Your task to perform on an android device: turn on the 12-hour format for clock Image 0: 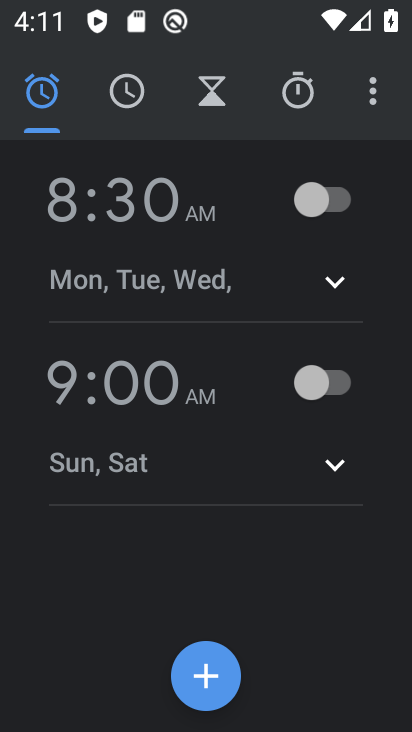
Step 0: press home button
Your task to perform on an android device: turn on the 12-hour format for clock Image 1: 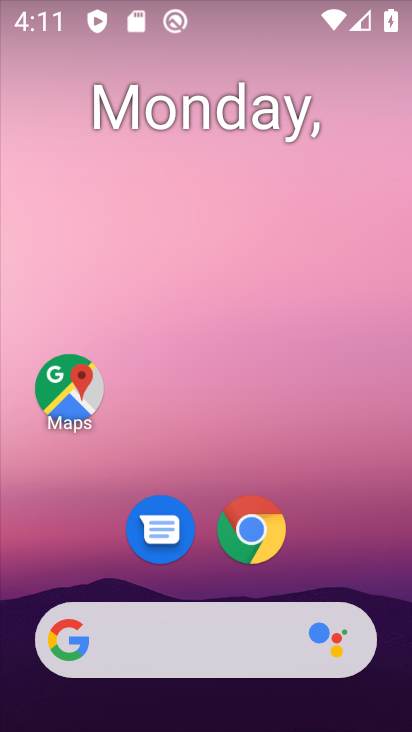
Step 1: drag from (210, 554) to (250, 15)
Your task to perform on an android device: turn on the 12-hour format for clock Image 2: 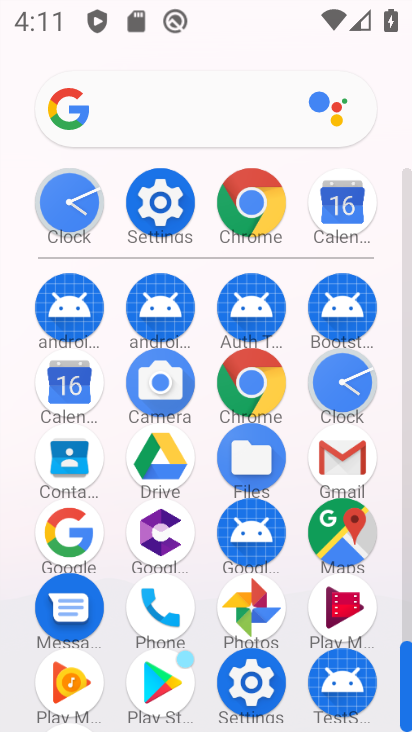
Step 2: click (159, 207)
Your task to perform on an android device: turn on the 12-hour format for clock Image 3: 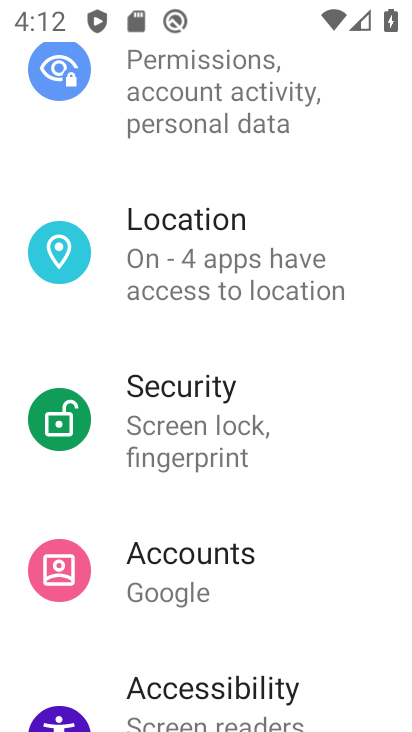
Step 3: drag from (200, 569) to (277, 217)
Your task to perform on an android device: turn on the 12-hour format for clock Image 4: 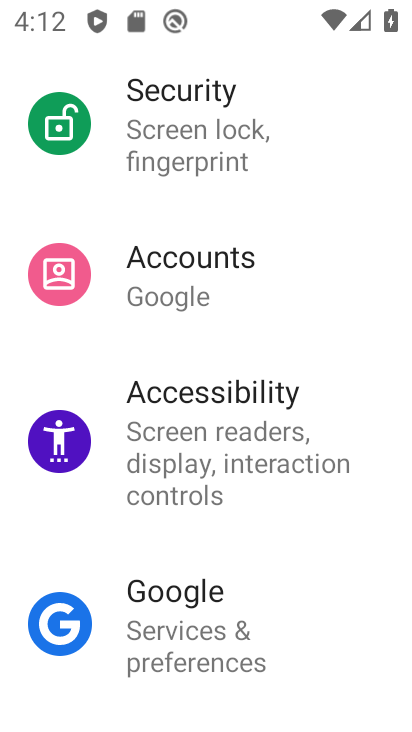
Step 4: drag from (188, 466) to (257, 123)
Your task to perform on an android device: turn on the 12-hour format for clock Image 5: 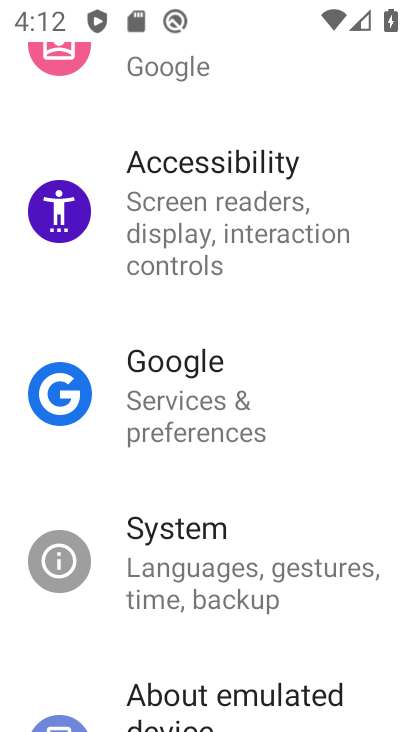
Step 5: click (160, 570)
Your task to perform on an android device: turn on the 12-hour format for clock Image 6: 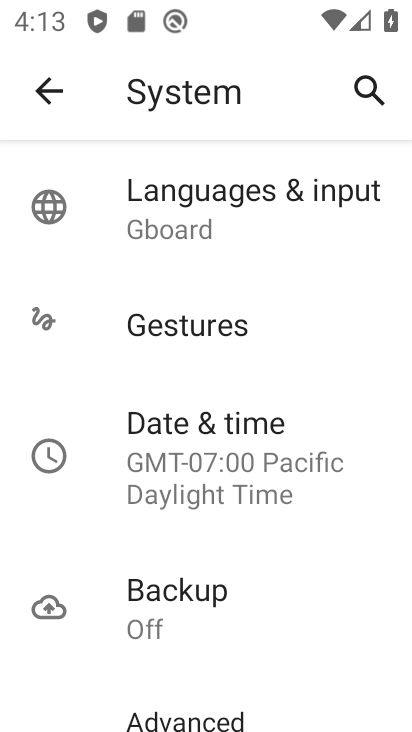
Step 6: click (207, 468)
Your task to perform on an android device: turn on the 12-hour format for clock Image 7: 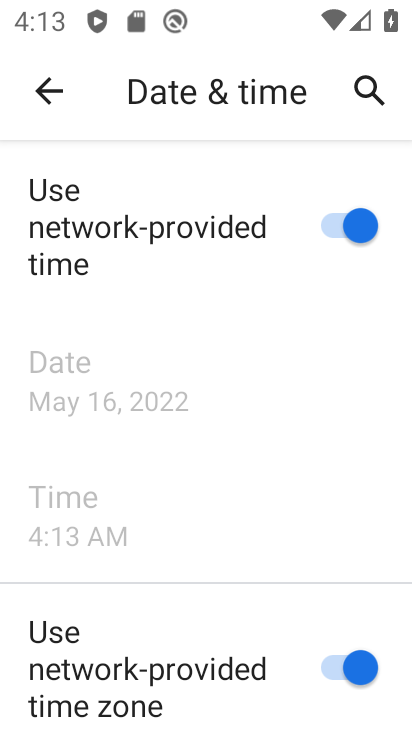
Step 7: task complete